Your task to perform on an android device: Go to calendar. Show me events next week Image 0: 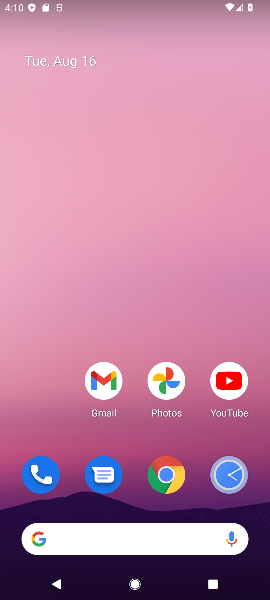
Step 0: drag from (74, 450) to (17, 32)
Your task to perform on an android device: Go to calendar. Show me events next week Image 1: 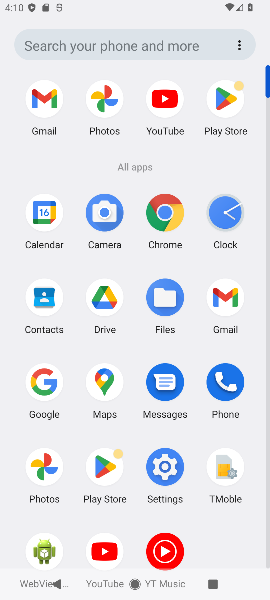
Step 1: click (42, 217)
Your task to perform on an android device: Go to calendar. Show me events next week Image 2: 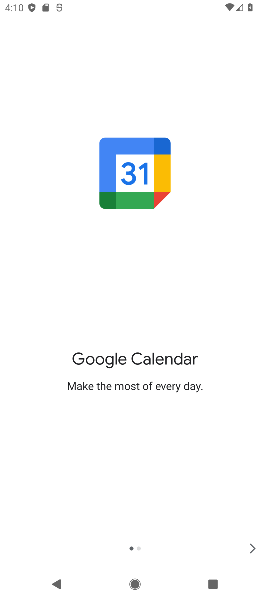
Step 2: click (262, 544)
Your task to perform on an android device: Go to calendar. Show me events next week Image 3: 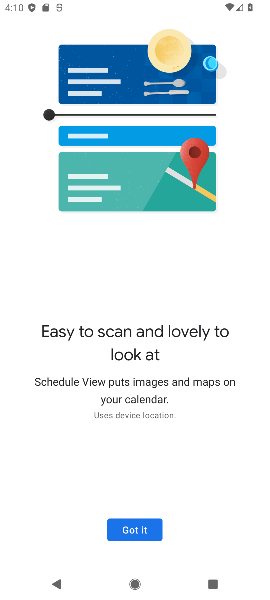
Step 3: click (254, 545)
Your task to perform on an android device: Go to calendar. Show me events next week Image 4: 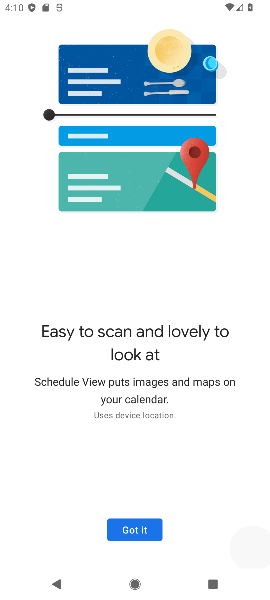
Step 4: click (145, 529)
Your task to perform on an android device: Go to calendar. Show me events next week Image 5: 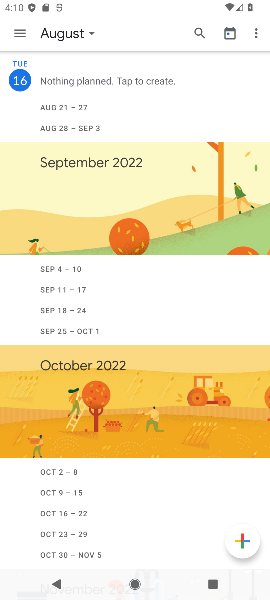
Step 5: task complete